Your task to perform on an android device: turn off airplane mode Image 0: 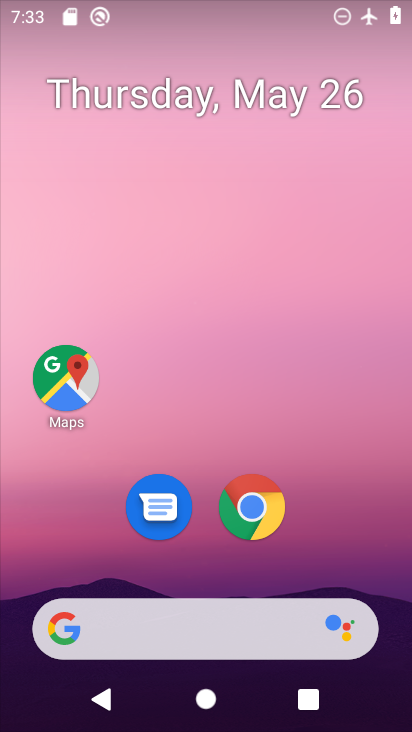
Step 0: drag from (200, 582) to (200, 35)
Your task to perform on an android device: turn off airplane mode Image 1: 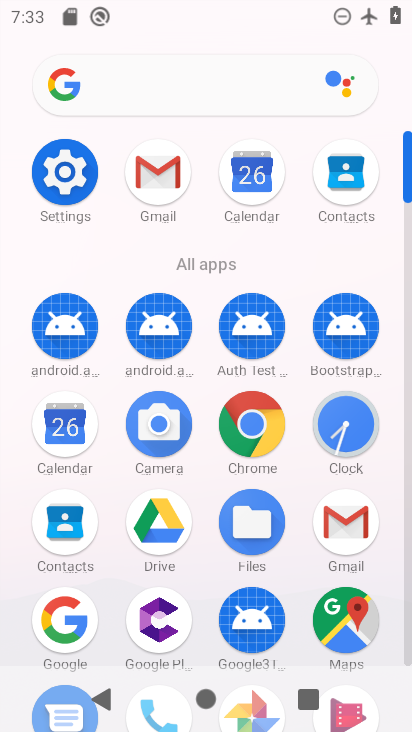
Step 1: click (64, 173)
Your task to perform on an android device: turn off airplane mode Image 2: 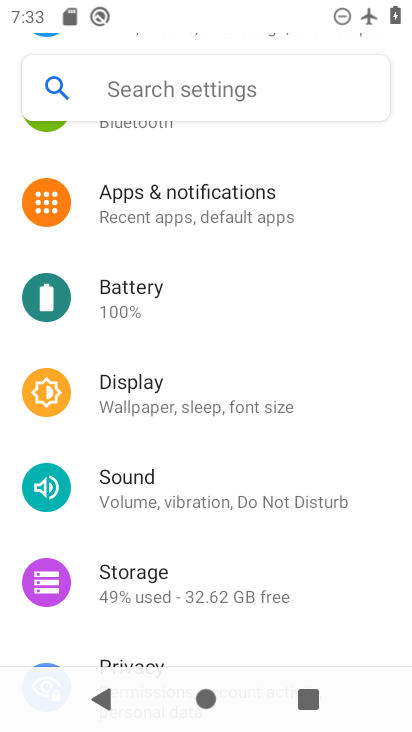
Step 2: drag from (143, 173) to (182, 560)
Your task to perform on an android device: turn off airplane mode Image 3: 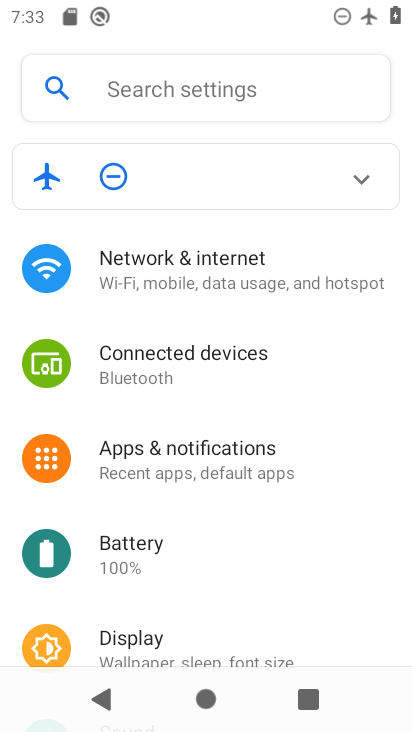
Step 3: click (361, 188)
Your task to perform on an android device: turn off airplane mode Image 4: 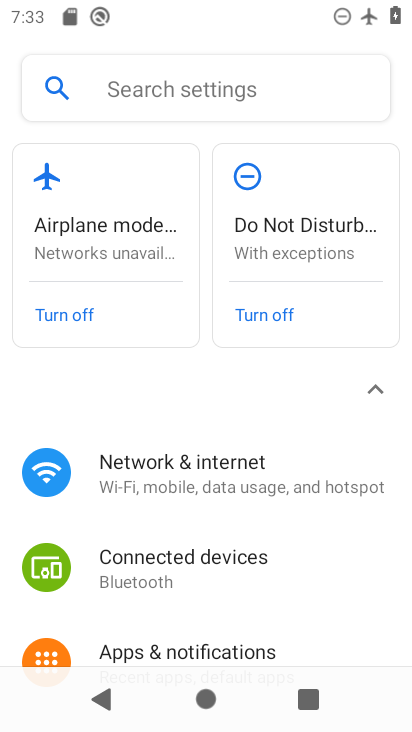
Step 4: click (64, 316)
Your task to perform on an android device: turn off airplane mode Image 5: 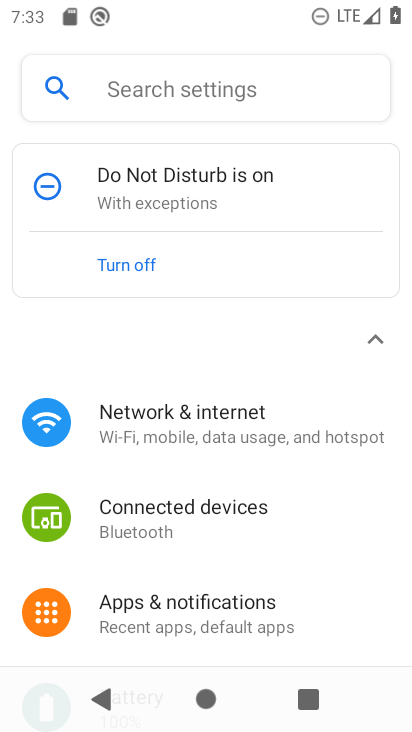
Step 5: task complete